Your task to perform on an android device: toggle sleep mode Image 0: 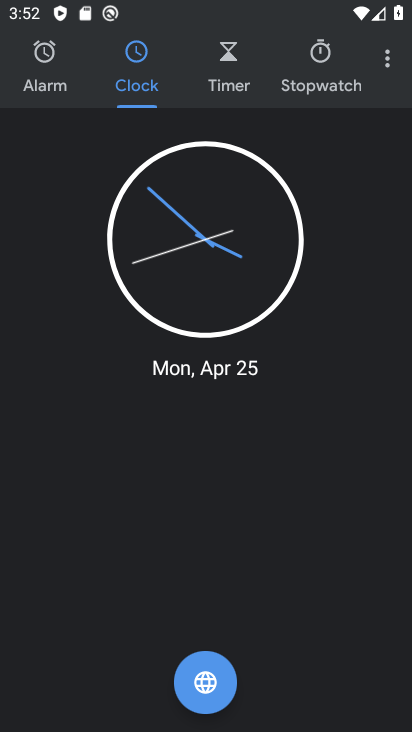
Step 0: press home button
Your task to perform on an android device: toggle sleep mode Image 1: 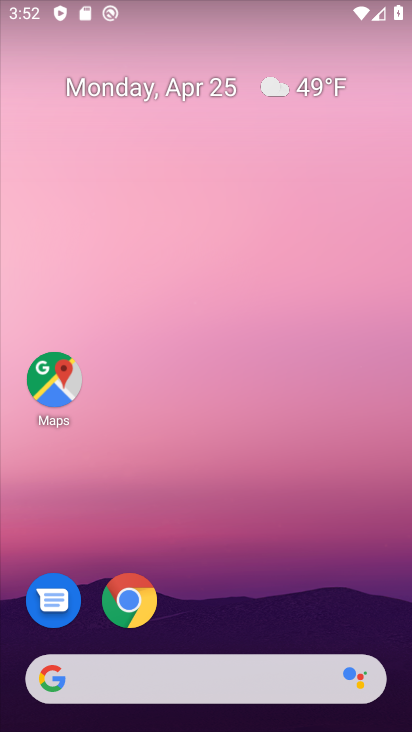
Step 1: drag from (264, 500) to (201, 7)
Your task to perform on an android device: toggle sleep mode Image 2: 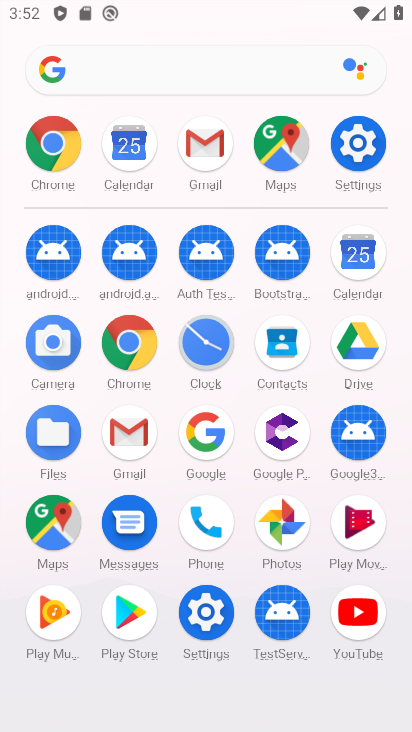
Step 2: click (353, 146)
Your task to perform on an android device: toggle sleep mode Image 3: 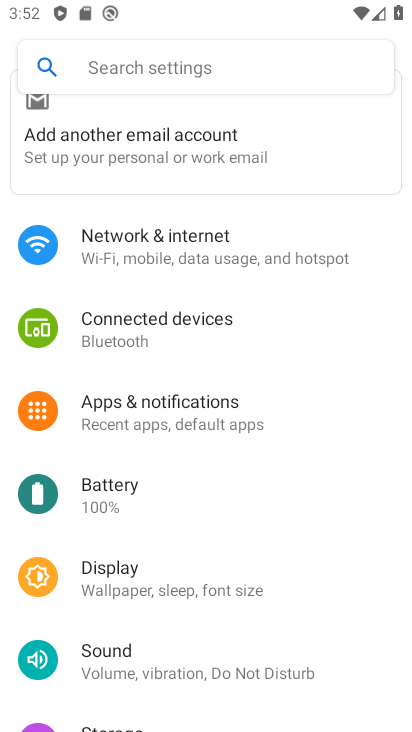
Step 3: click (222, 580)
Your task to perform on an android device: toggle sleep mode Image 4: 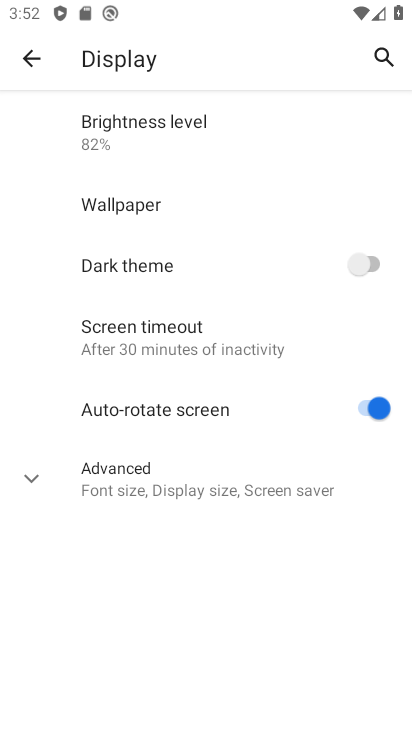
Step 4: click (28, 473)
Your task to perform on an android device: toggle sleep mode Image 5: 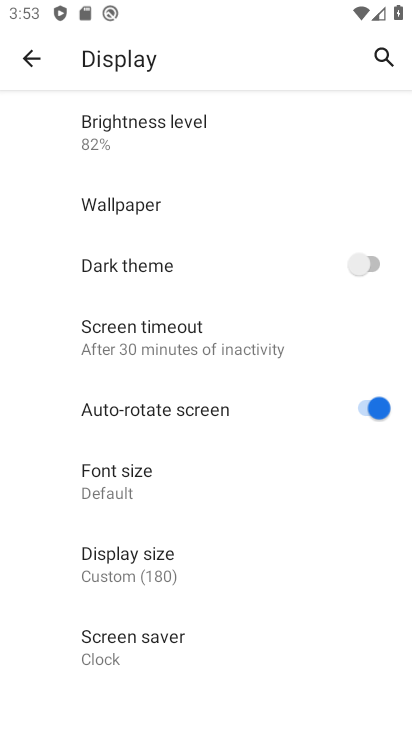
Step 5: task complete